Your task to perform on an android device: Open maps Image 0: 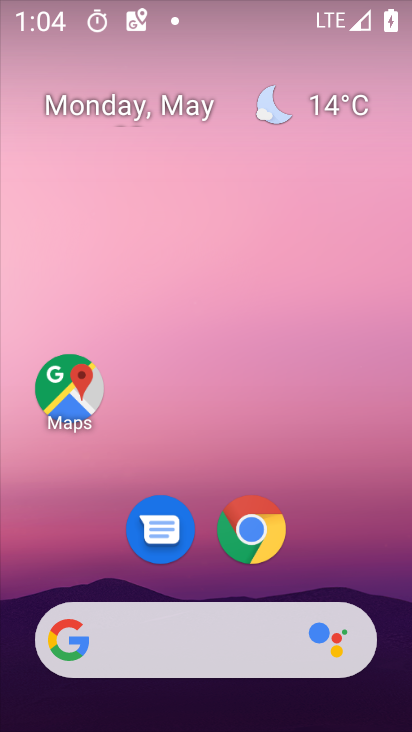
Step 0: drag from (381, 583) to (390, 192)
Your task to perform on an android device: Open maps Image 1: 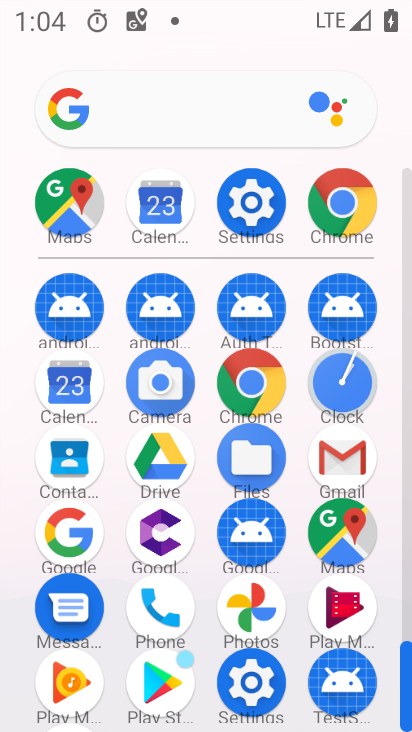
Step 1: click (352, 544)
Your task to perform on an android device: Open maps Image 2: 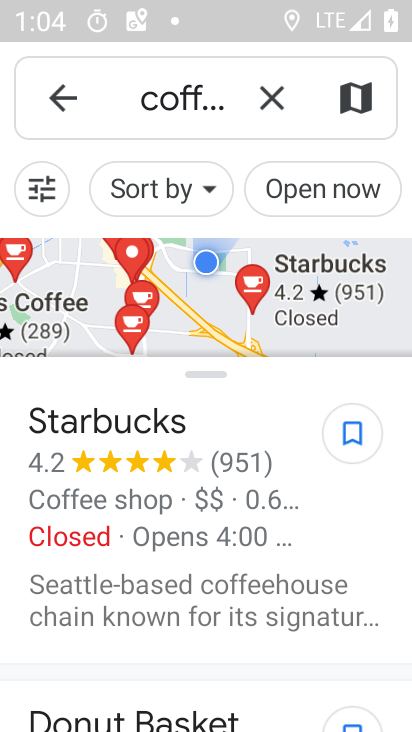
Step 2: task complete